Your task to perform on an android device: open a bookmark in the chrome app Image 0: 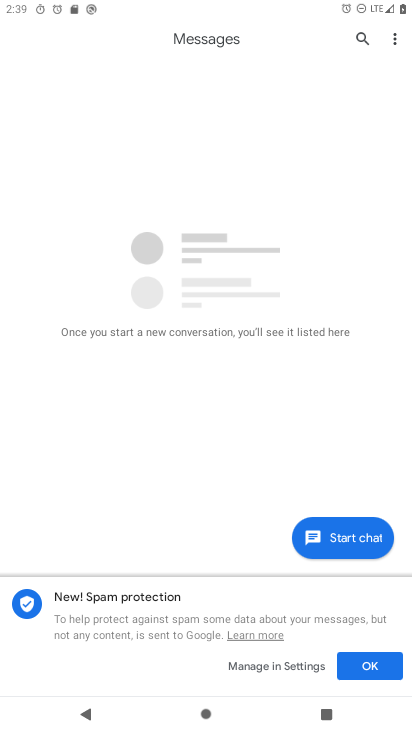
Step 0: press home button
Your task to perform on an android device: open a bookmark in the chrome app Image 1: 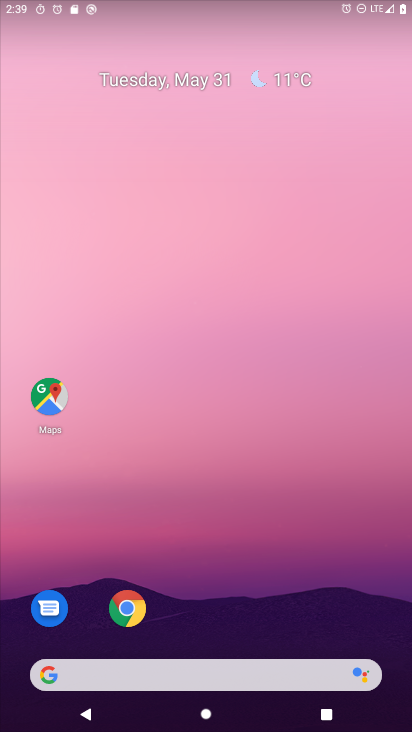
Step 1: click (127, 623)
Your task to perform on an android device: open a bookmark in the chrome app Image 2: 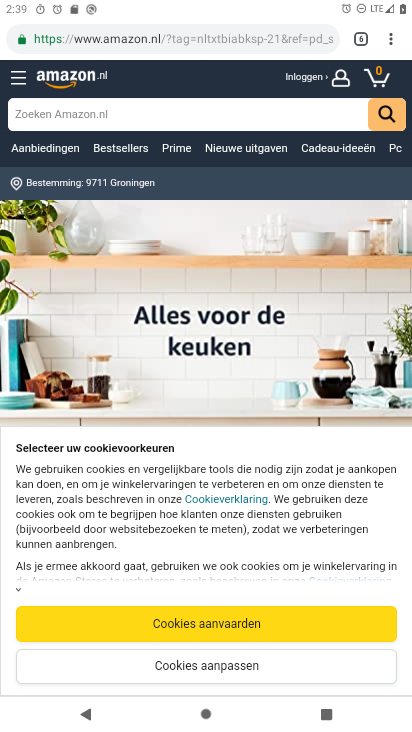
Step 2: click (392, 39)
Your task to perform on an android device: open a bookmark in the chrome app Image 3: 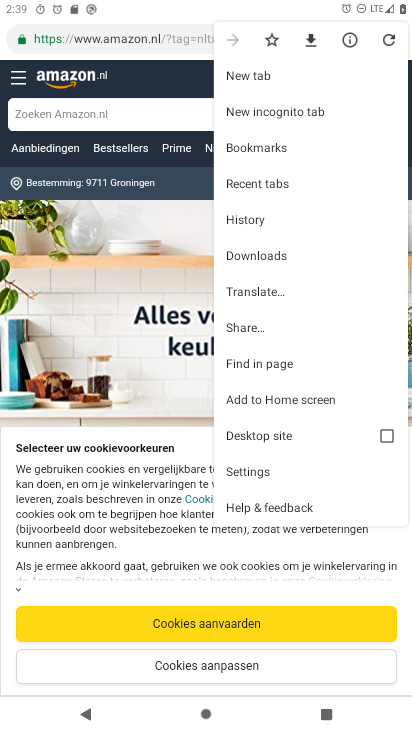
Step 3: click (268, 150)
Your task to perform on an android device: open a bookmark in the chrome app Image 4: 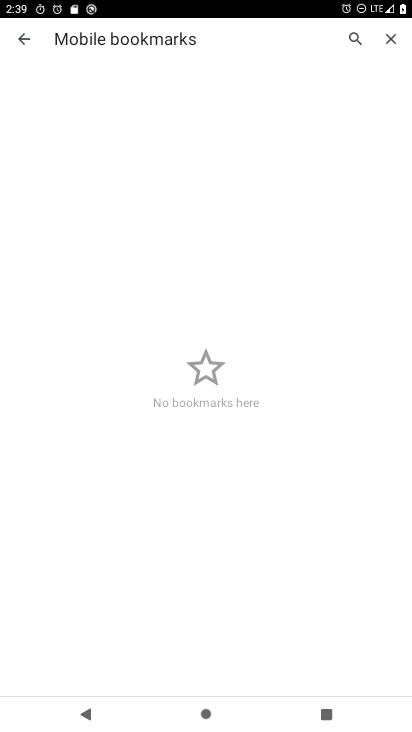
Step 4: task complete